Your task to perform on an android device: Go to Amazon Image 0: 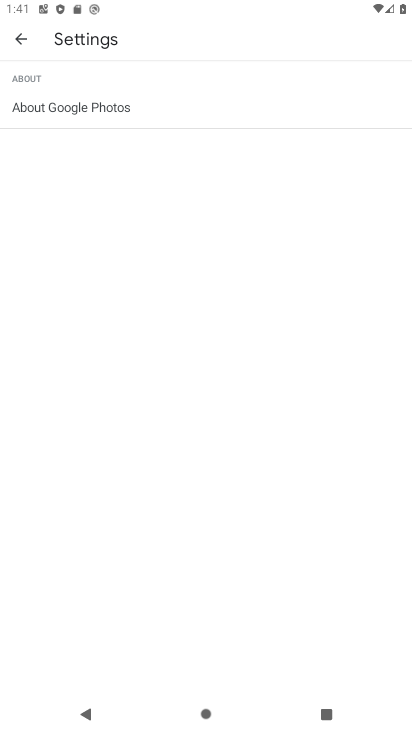
Step 0: press home button
Your task to perform on an android device: Go to Amazon Image 1: 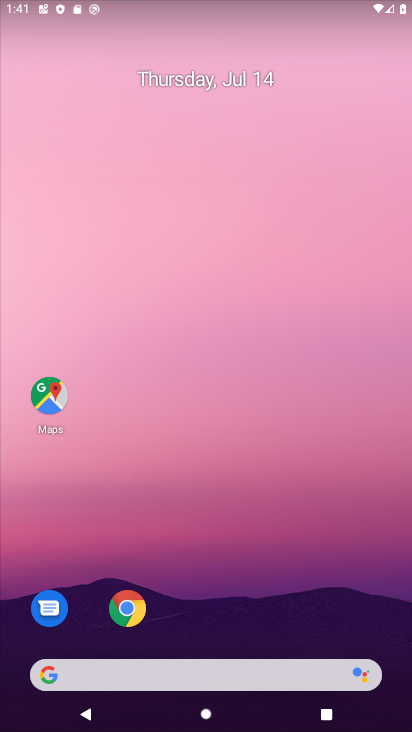
Step 1: click (127, 608)
Your task to perform on an android device: Go to Amazon Image 2: 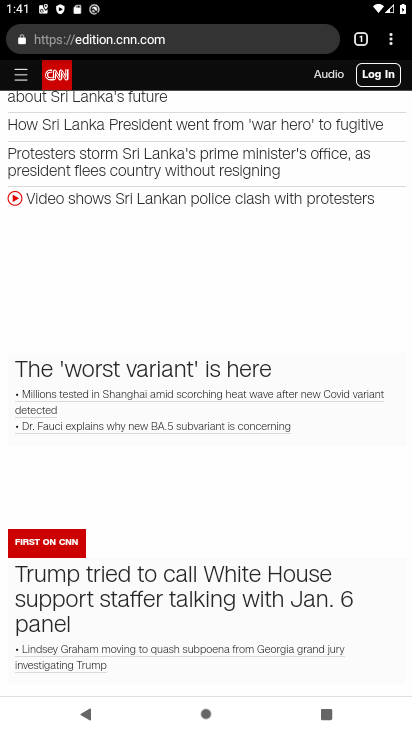
Step 2: click (181, 37)
Your task to perform on an android device: Go to Amazon Image 3: 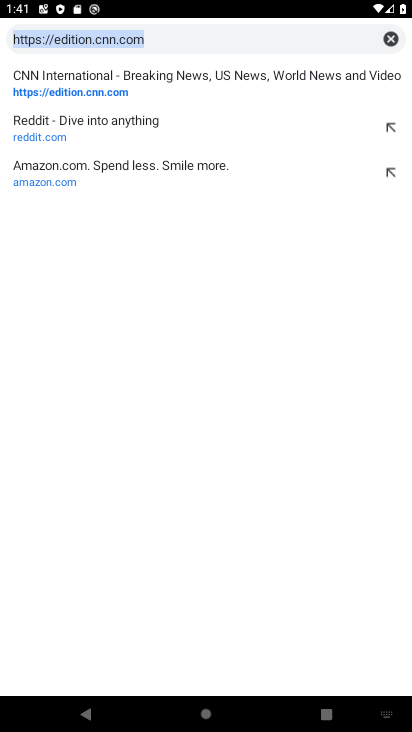
Step 3: click (389, 41)
Your task to perform on an android device: Go to Amazon Image 4: 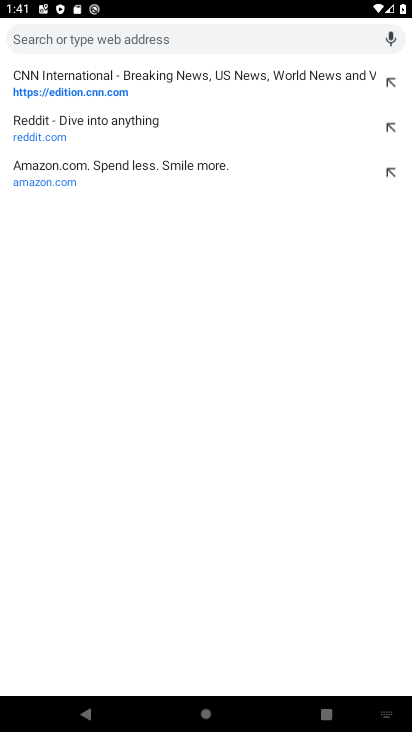
Step 4: type "Amazon"
Your task to perform on an android device: Go to Amazon Image 5: 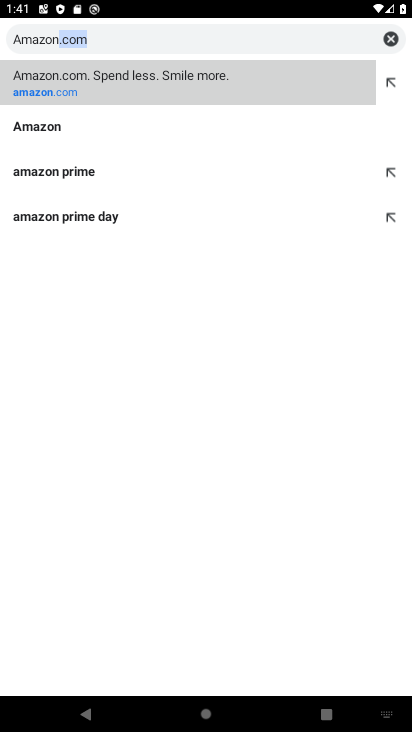
Step 5: click (56, 82)
Your task to perform on an android device: Go to Amazon Image 6: 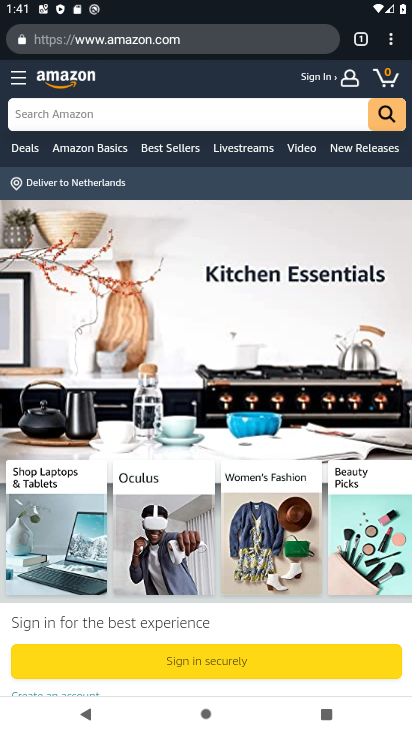
Step 6: task complete